Your task to perform on an android device: turn off location history Image 0: 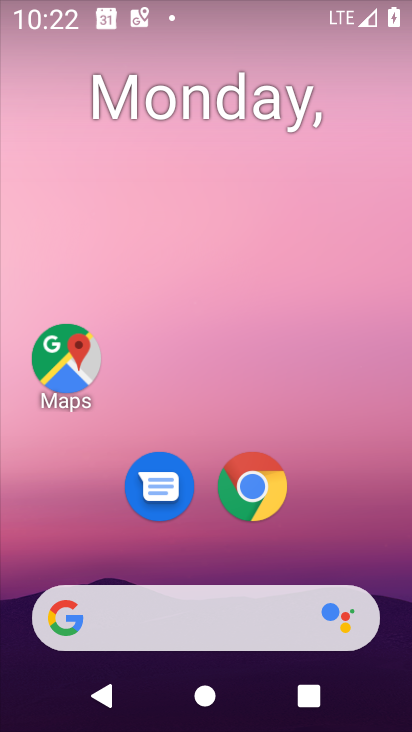
Step 0: drag from (351, 527) to (294, 12)
Your task to perform on an android device: turn off location history Image 1: 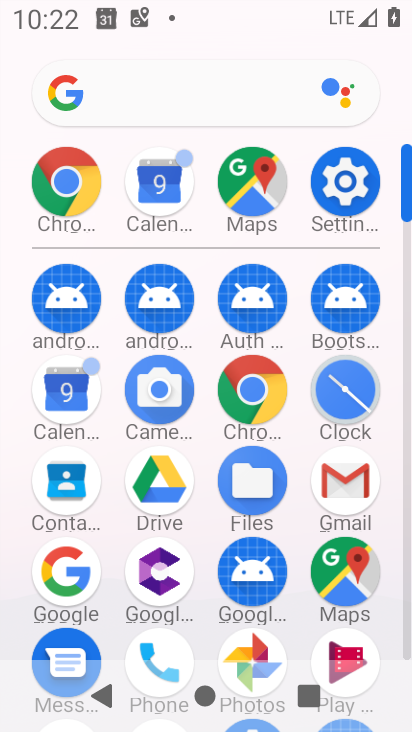
Step 1: drag from (15, 608) to (20, 268)
Your task to perform on an android device: turn off location history Image 2: 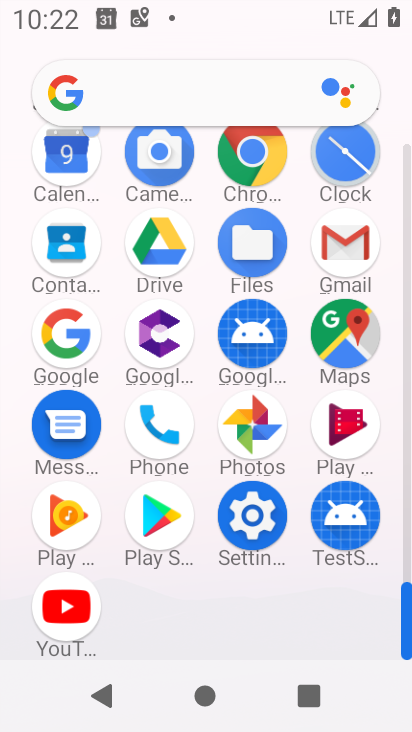
Step 2: click (255, 509)
Your task to perform on an android device: turn off location history Image 3: 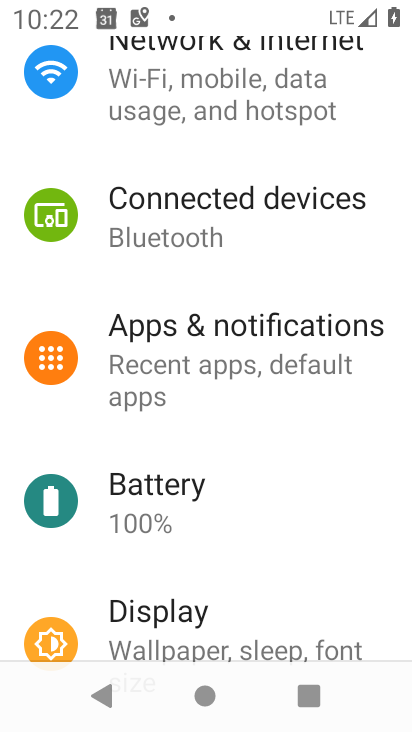
Step 3: drag from (235, 504) to (261, 97)
Your task to perform on an android device: turn off location history Image 4: 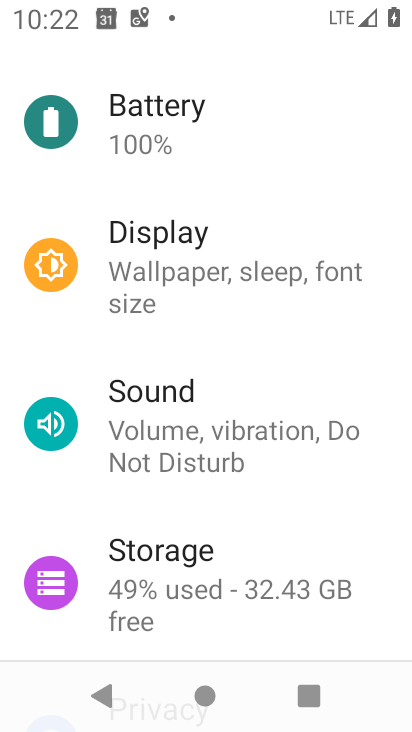
Step 4: drag from (269, 541) to (297, 112)
Your task to perform on an android device: turn off location history Image 5: 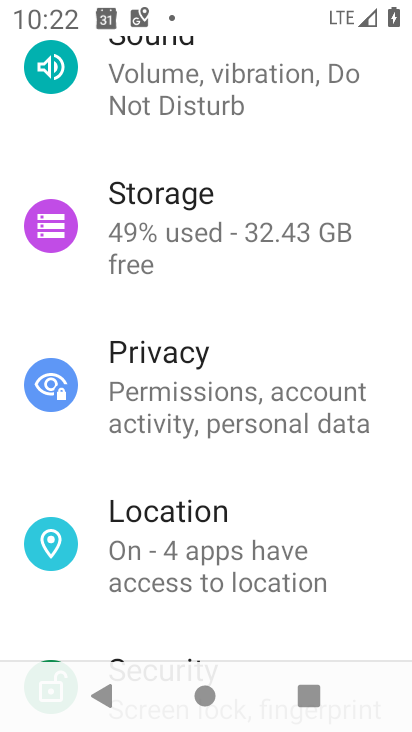
Step 5: drag from (248, 511) to (268, 160)
Your task to perform on an android device: turn off location history Image 6: 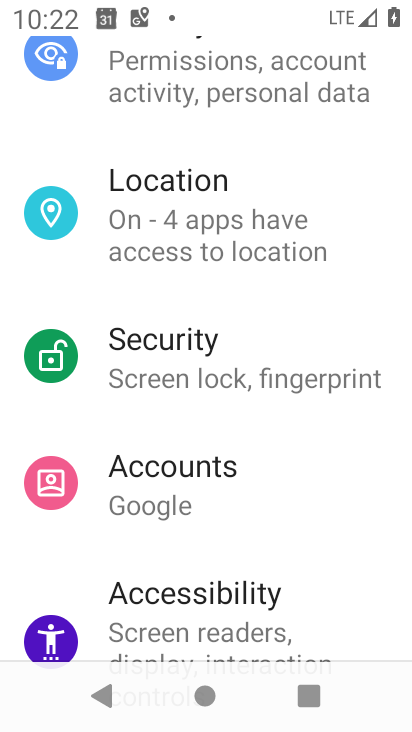
Step 6: click (250, 194)
Your task to perform on an android device: turn off location history Image 7: 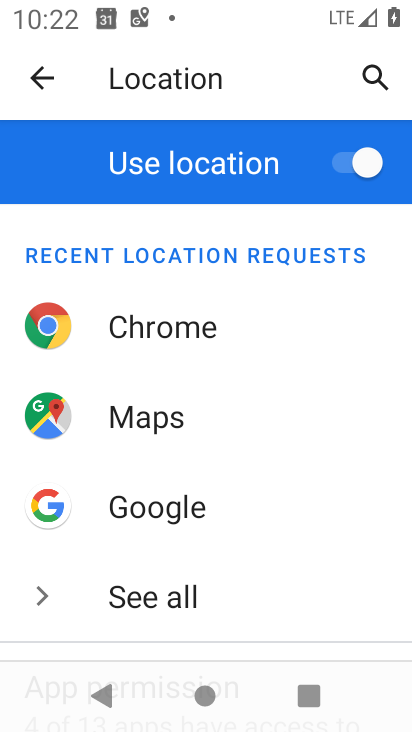
Step 7: drag from (248, 443) to (237, 122)
Your task to perform on an android device: turn off location history Image 8: 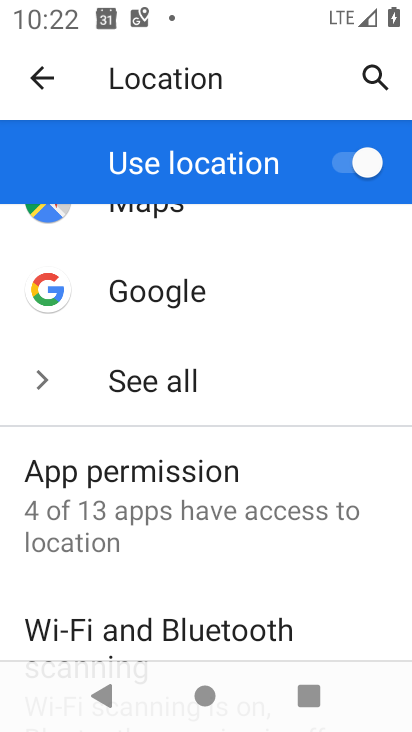
Step 8: drag from (264, 501) to (281, 225)
Your task to perform on an android device: turn off location history Image 9: 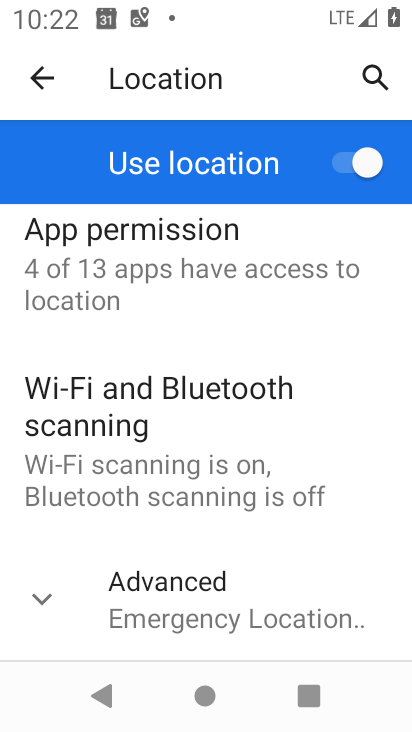
Step 9: click (191, 575)
Your task to perform on an android device: turn off location history Image 10: 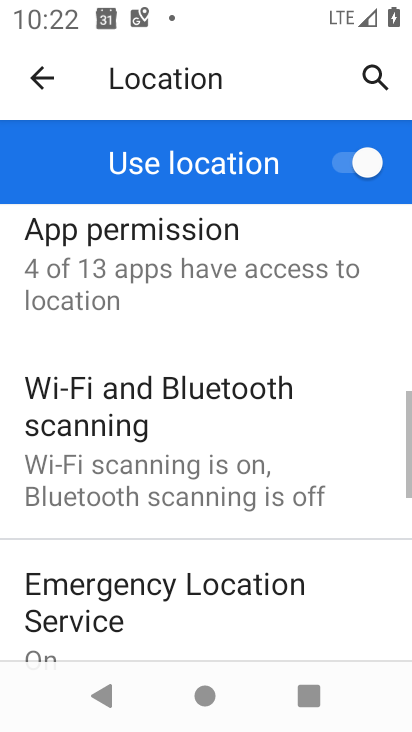
Step 10: drag from (276, 557) to (258, 251)
Your task to perform on an android device: turn off location history Image 11: 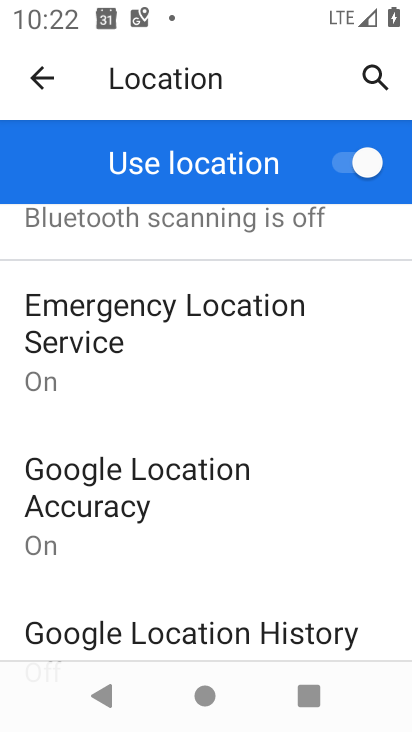
Step 11: drag from (256, 597) to (275, 228)
Your task to perform on an android device: turn off location history Image 12: 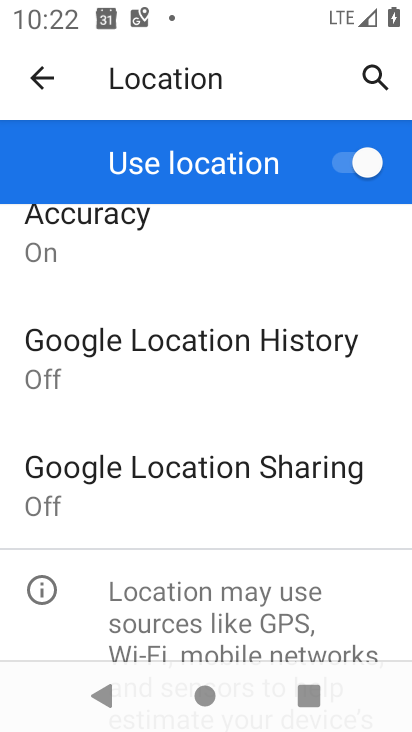
Step 12: click (214, 354)
Your task to perform on an android device: turn off location history Image 13: 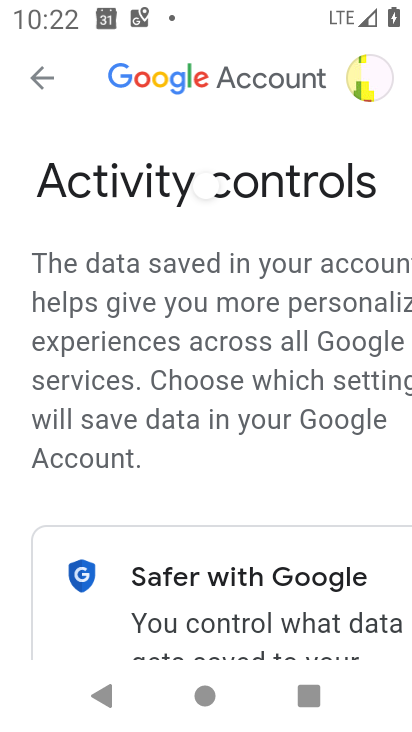
Step 13: task complete